Your task to perform on an android device: Open the calendar and show me this week's events? Image 0: 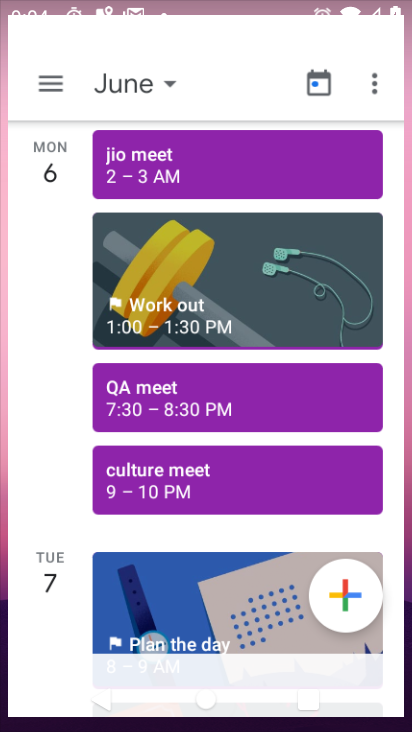
Step 0: drag from (269, 655) to (231, 157)
Your task to perform on an android device: Open the calendar and show me this week's events? Image 1: 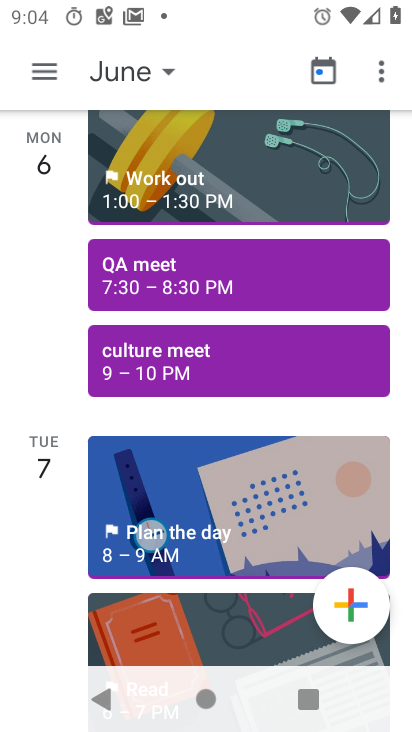
Step 1: press home button
Your task to perform on an android device: Open the calendar and show me this week's events? Image 2: 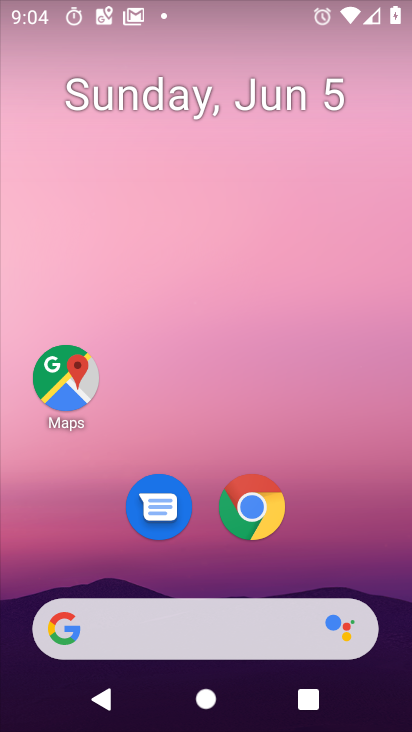
Step 2: drag from (260, 622) to (231, 143)
Your task to perform on an android device: Open the calendar and show me this week's events? Image 3: 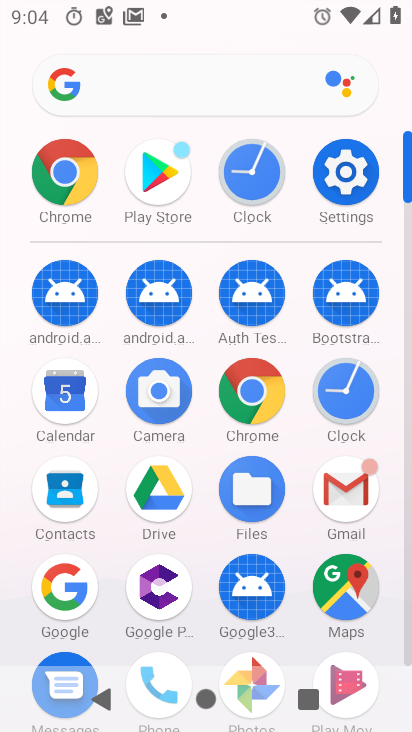
Step 3: click (58, 412)
Your task to perform on an android device: Open the calendar and show me this week's events? Image 4: 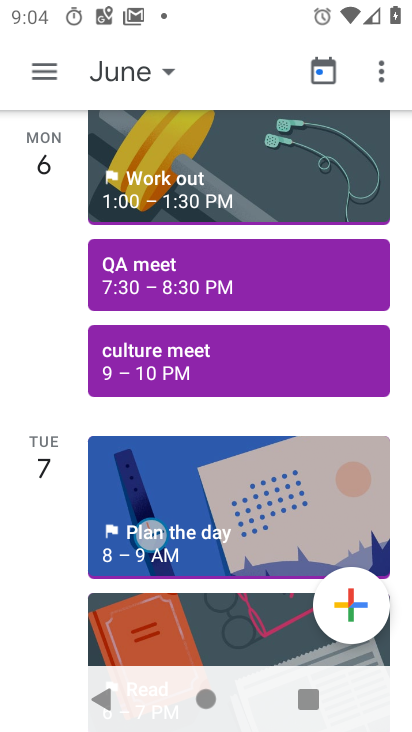
Step 4: click (34, 67)
Your task to perform on an android device: Open the calendar and show me this week's events? Image 5: 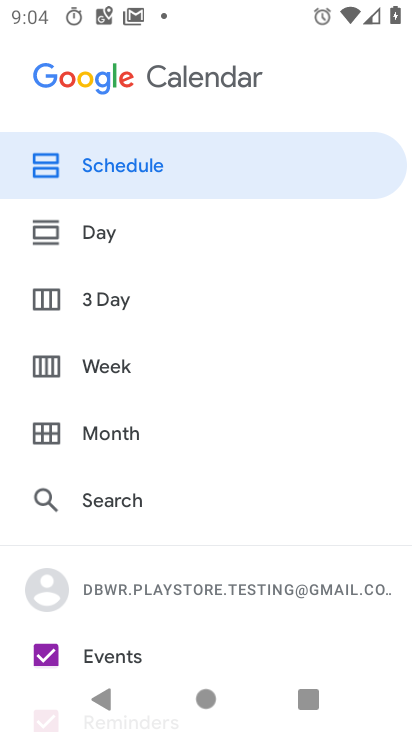
Step 5: click (108, 171)
Your task to perform on an android device: Open the calendar and show me this week's events? Image 6: 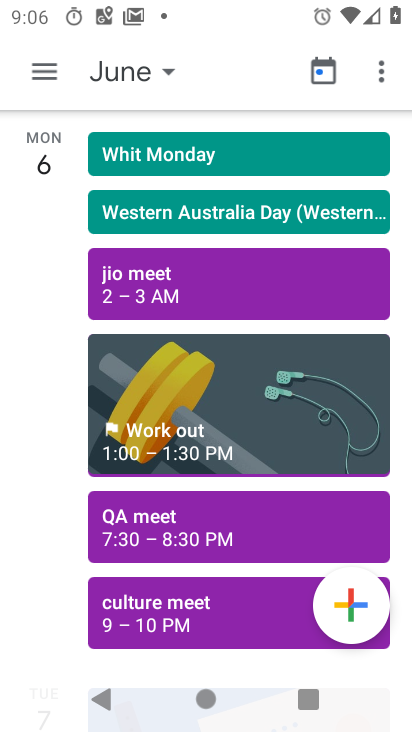
Step 6: task complete